Your task to perform on an android device: toggle show notifications on the lock screen Image 0: 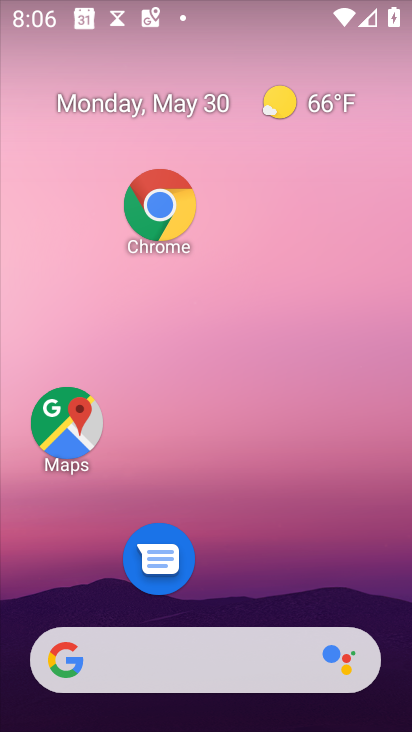
Step 0: drag from (262, 690) to (222, 11)
Your task to perform on an android device: toggle show notifications on the lock screen Image 1: 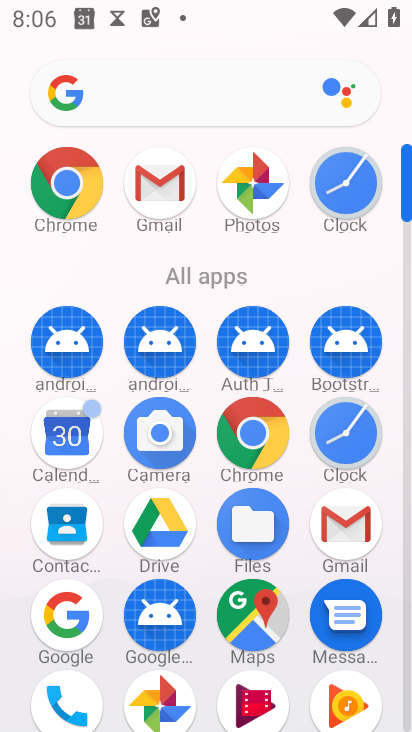
Step 1: drag from (189, 535) to (189, 219)
Your task to perform on an android device: toggle show notifications on the lock screen Image 2: 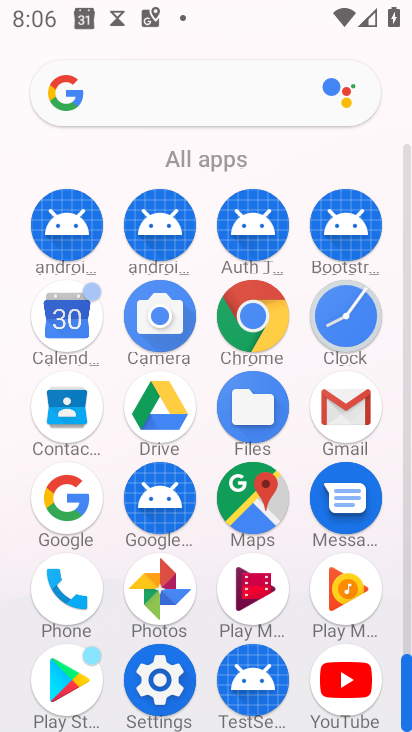
Step 2: drag from (234, 413) to (227, 142)
Your task to perform on an android device: toggle show notifications on the lock screen Image 3: 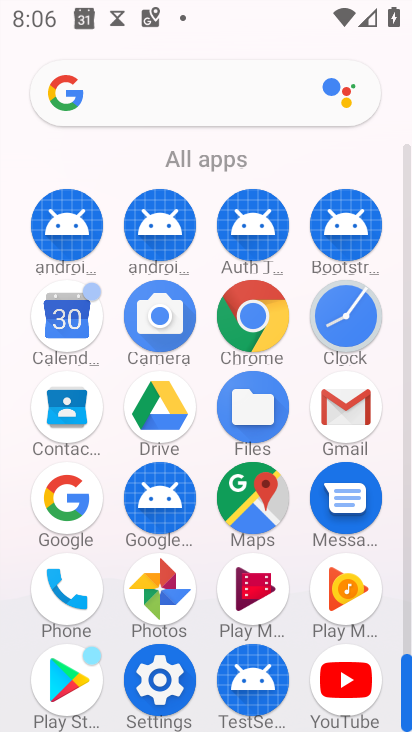
Step 3: click (154, 682)
Your task to perform on an android device: toggle show notifications on the lock screen Image 4: 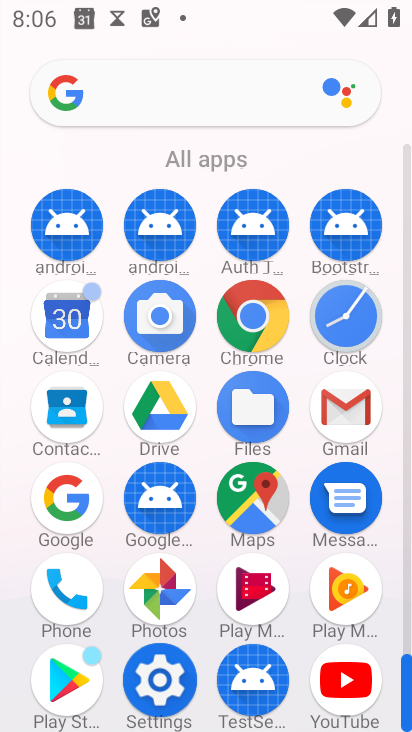
Step 4: click (155, 683)
Your task to perform on an android device: toggle show notifications on the lock screen Image 5: 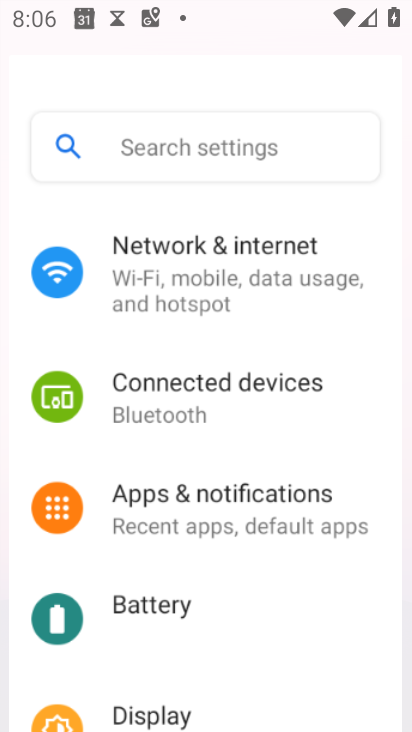
Step 5: click (155, 684)
Your task to perform on an android device: toggle show notifications on the lock screen Image 6: 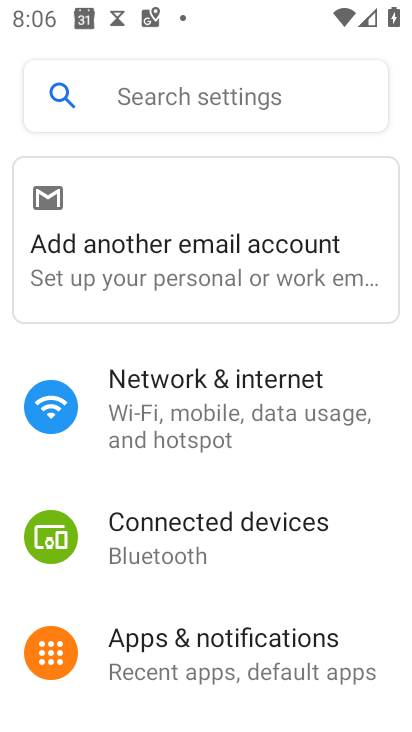
Step 6: click (213, 185)
Your task to perform on an android device: toggle show notifications on the lock screen Image 7: 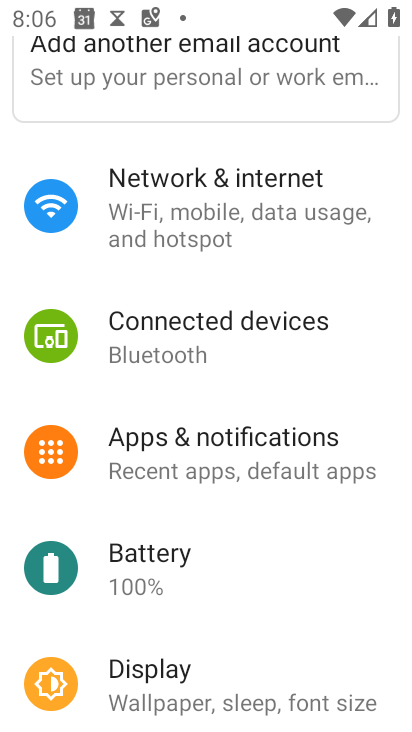
Step 7: drag from (204, 347) to (201, 99)
Your task to perform on an android device: toggle show notifications on the lock screen Image 8: 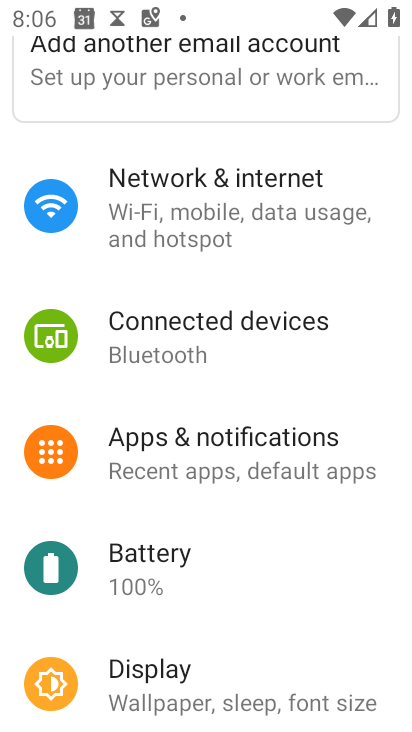
Step 8: drag from (197, 454) to (183, 252)
Your task to perform on an android device: toggle show notifications on the lock screen Image 9: 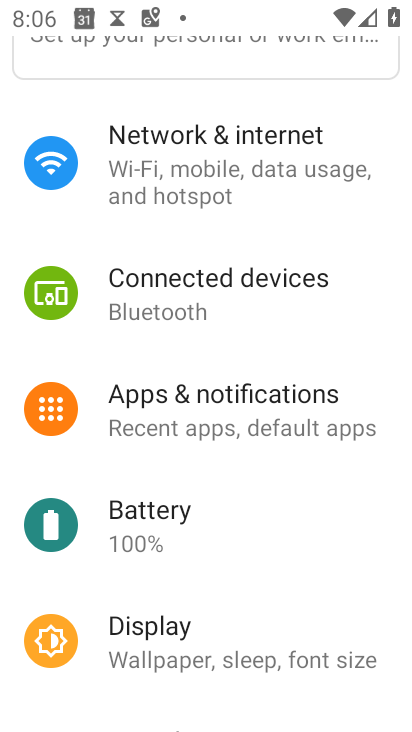
Step 9: click (198, 422)
Your task to perform on an android device: toggle show notifications on the lock screen Image 10: 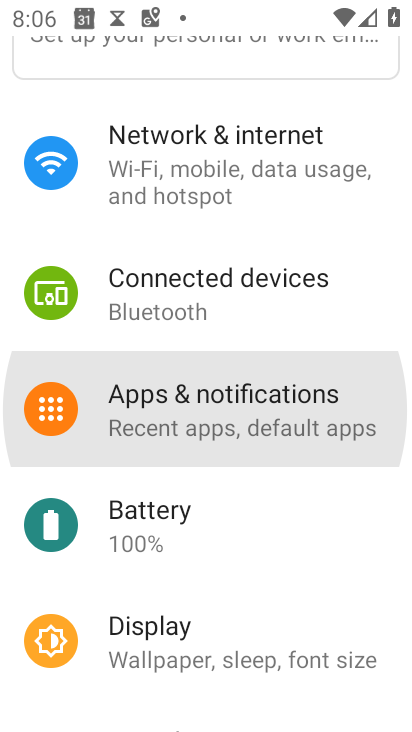
Step 10: click (198, 422)
Your task to perform on an android device: toggle show notifications on the lock screen Image 11: 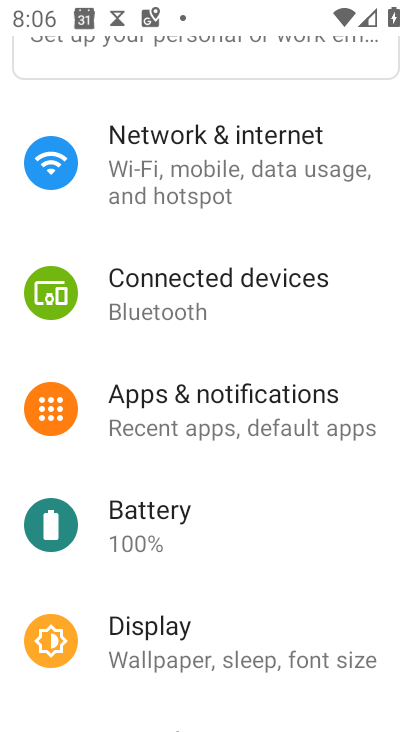
Step 11: click (197, 419)
Your task to perform on an android device: toggle show notifications on the lock screen Image 12: 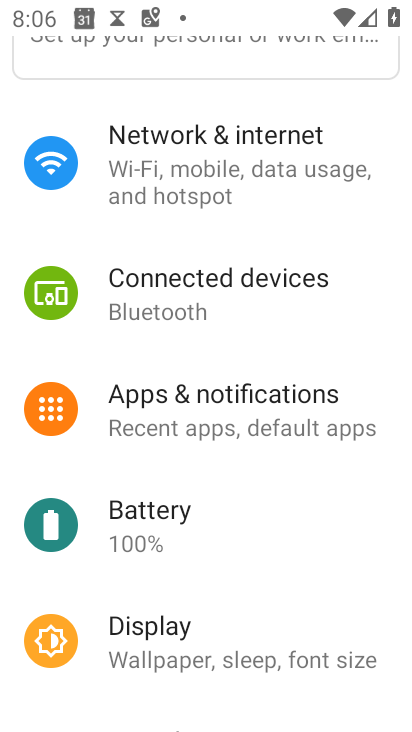
Step 12: click (197, 419)
Your task to perform on an android device: toggle show notifications on the lock screen Image 13: 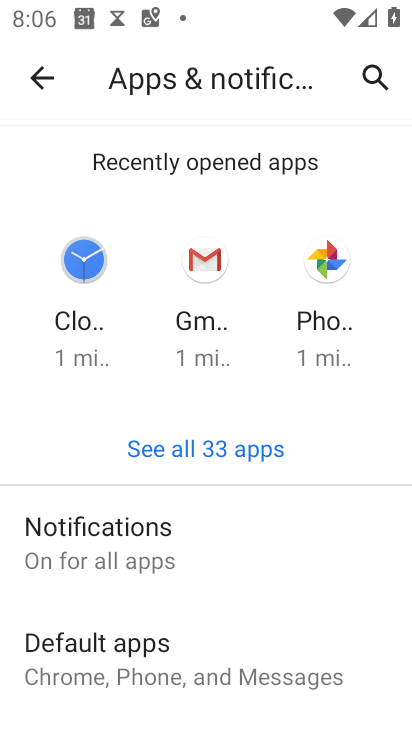
Step 13: click (74, 534)
Your task to perform on an android device: toggle show notifications on the lock screen Image 14: 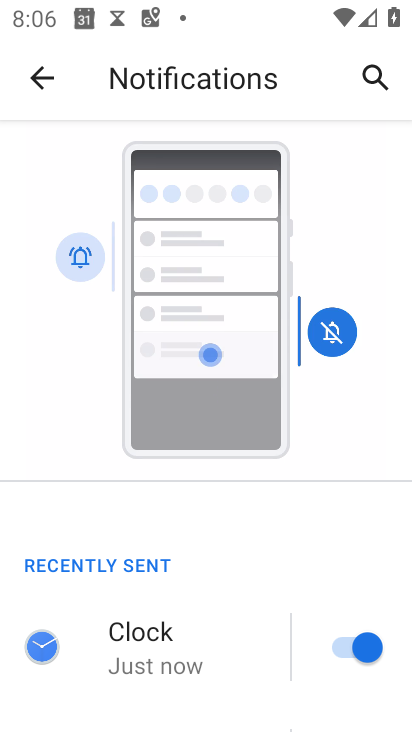
Step 14: drag from (59, 172) to (55, 132)
Your task to perform on an android device: toggle show notifications on the lock screen Image 15: 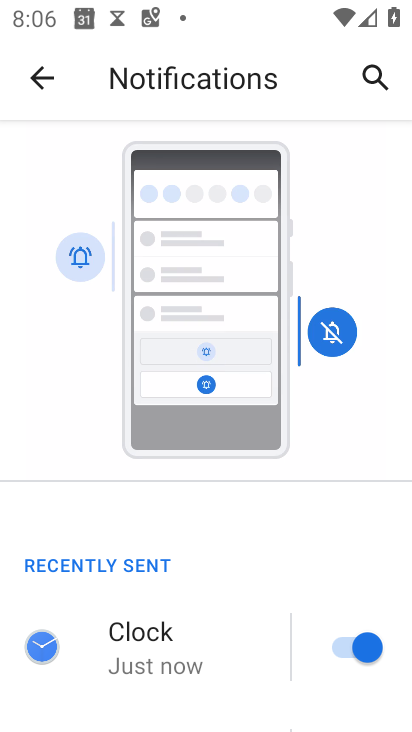
Step 15: drag from (153, 446) to (135, 79)
Your task to perform on an android device: toggle show notifications on the lock screen Image 16: 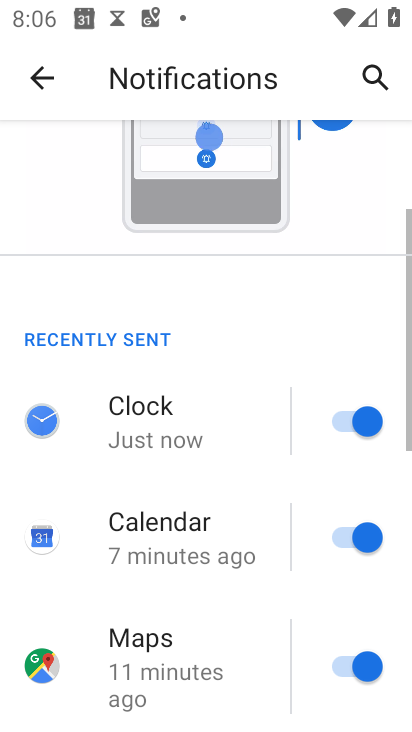
Step 16: drag from (245, 440) to (243, 120)
Your task to perform on an android device: toggle show notifications on the lock screen Image 17: 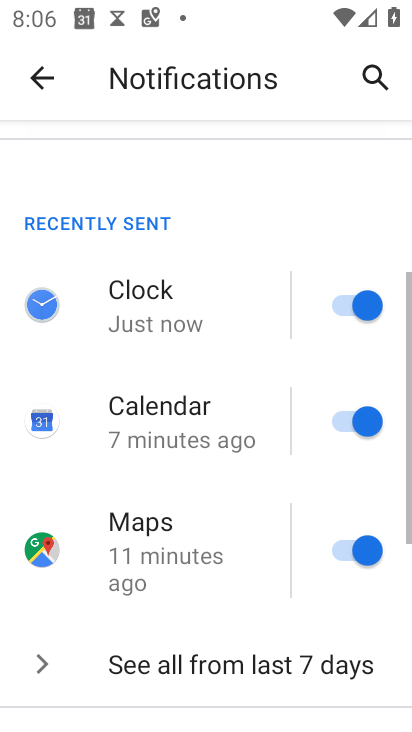
Step 17: drag from (235, 445) to (258, 164)
Your task to perform on an android device: toggle show notifications on the lock screen Image 18: 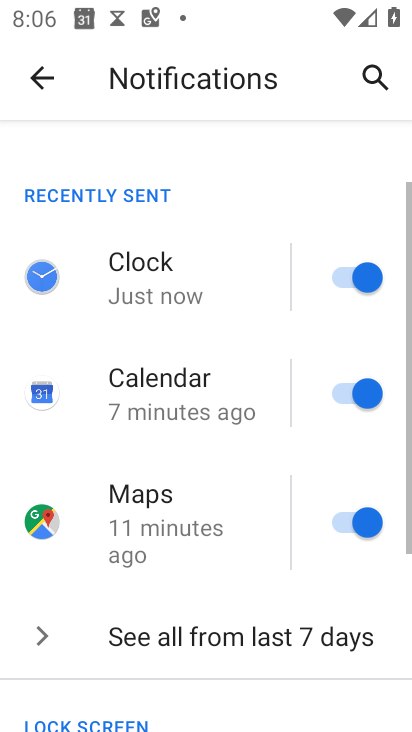
Step 18: drag from (254, 343) to (254, 192)
Your task to perform on an android device: toggle show notifications on the lock screen Image 19: 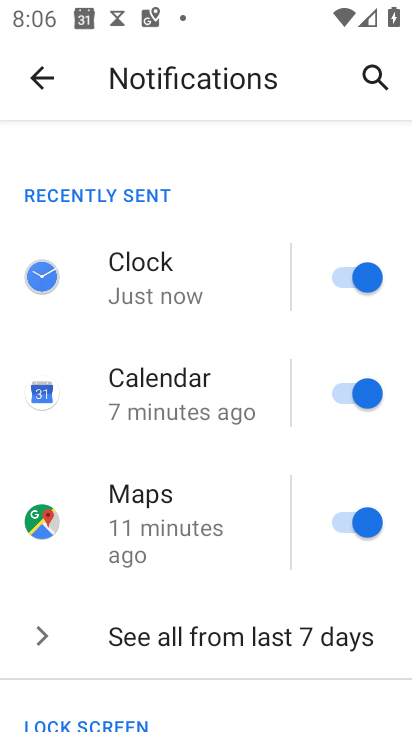
Step 19: drag from (257, 621) to (250, 197)
Your task to perform on an android device: toggle show notifications on the lock screen Image 20: 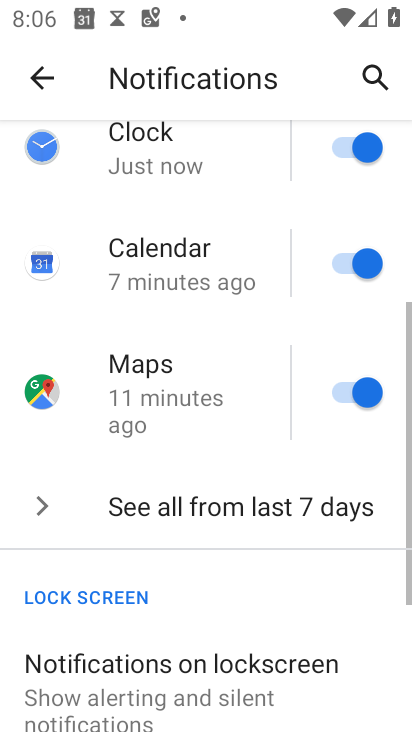
Step 20: drag from (191, 452) to (168, 133)
Your task to perform on an android device: toggle show notifications on the lock screen Image 21: 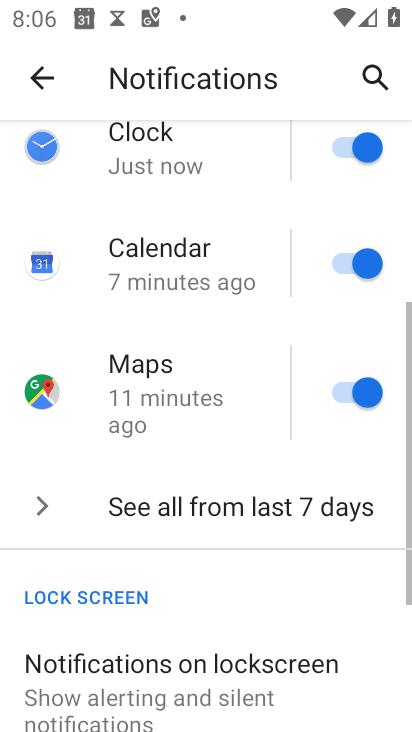
Step 21: drag from (164, 460) to (176, 289)
Your task to perform on an android device: toggle show notifications on the lock screen Image 22: 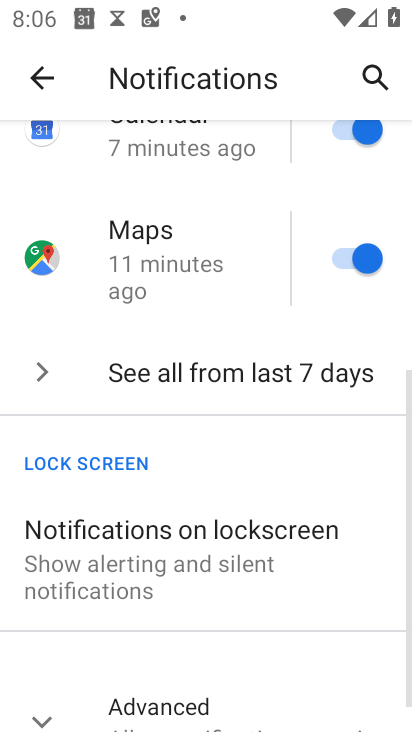
Step 22: drag from (219, 491) to (215, 252)
Your task to perform on an android device: toggle show notifications on the lock screen Image 23: 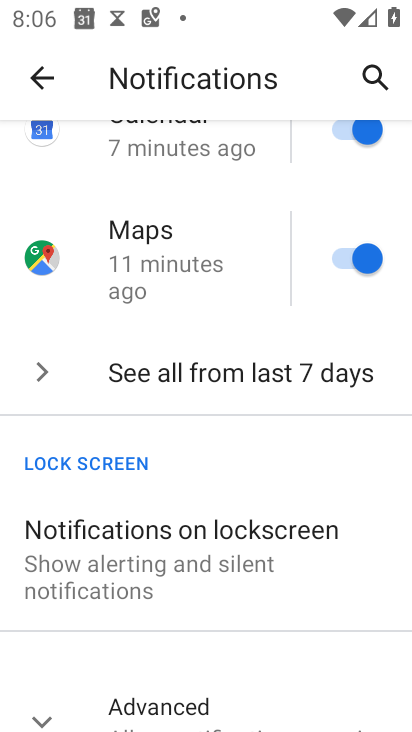
Step 23: click (133, 554)
Your task to perform on an android device: toggle show notifications on the lock screen Image 24: 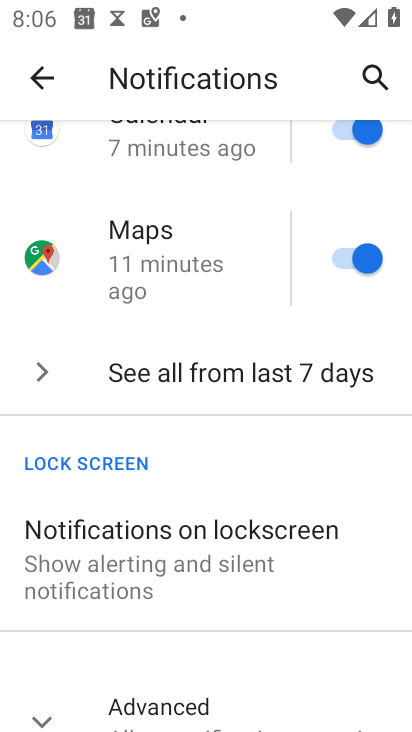
Step 24: click (130, 558)
Your task to perform on an android device: toggle show notifications on the lock screen Image 25: 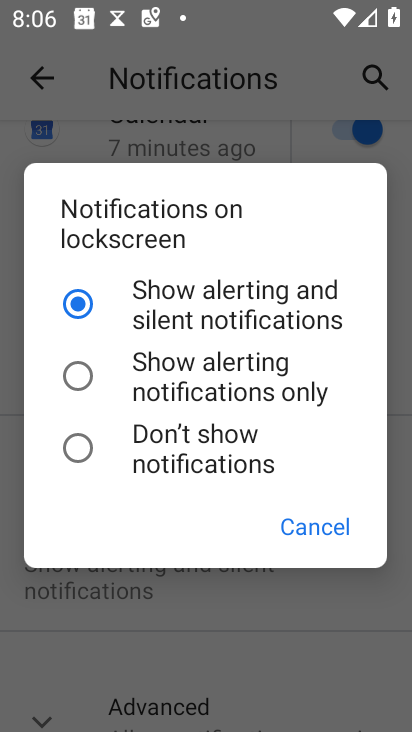
Step 25: click (137, 553)
Your task to perform on an android device: toggle show notifications on the lock screen Image 26: 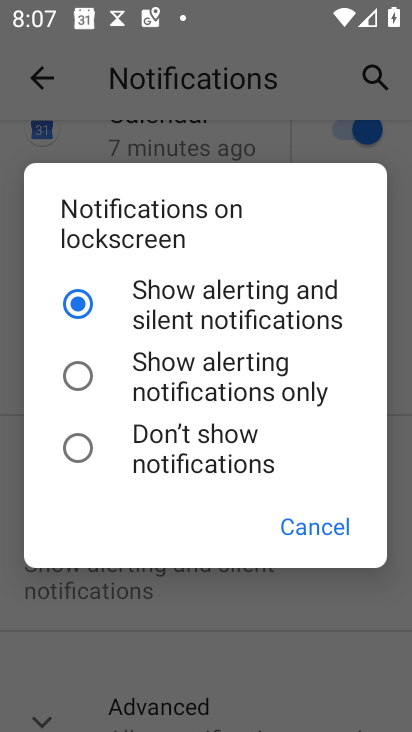
Step 26: click (332, 526)
Your task to perform on an android device: toggle show notifications on the lock screen Image 27: 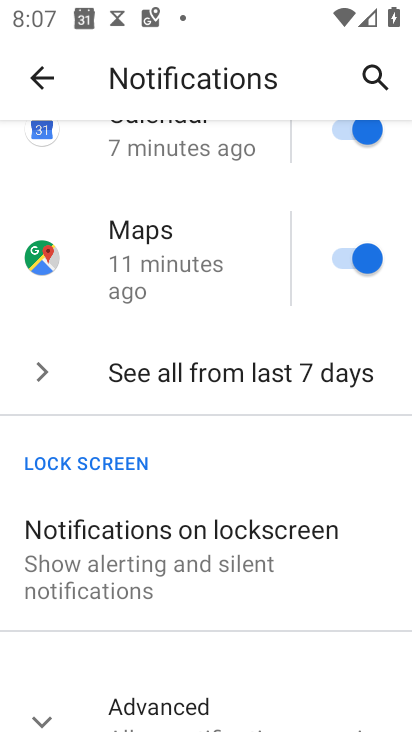
Step 27: task complete